Your task to perform on an android device: change your default location settings in chrome Image 0: 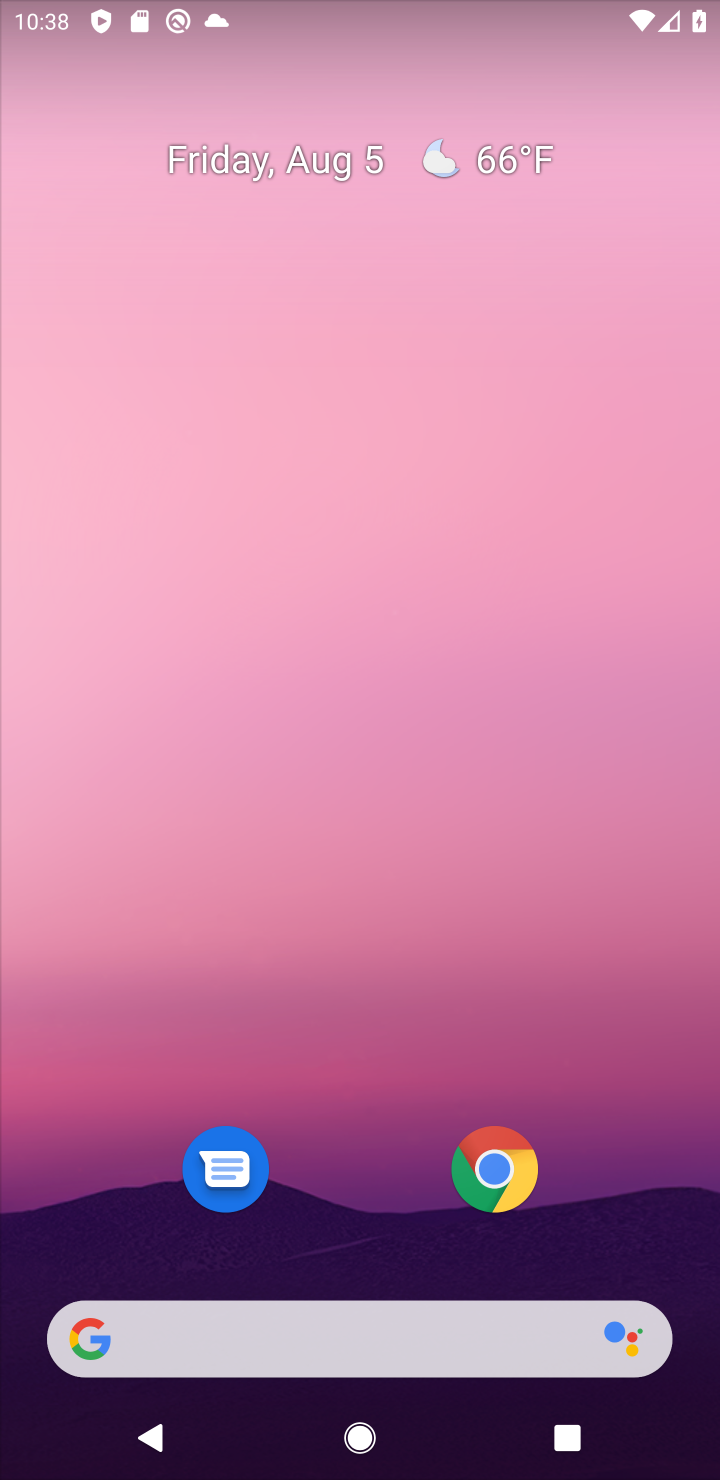
Step 0: click (499, 1176)
Your task to perform on an android device: change your default location settings in chrome Image 1: 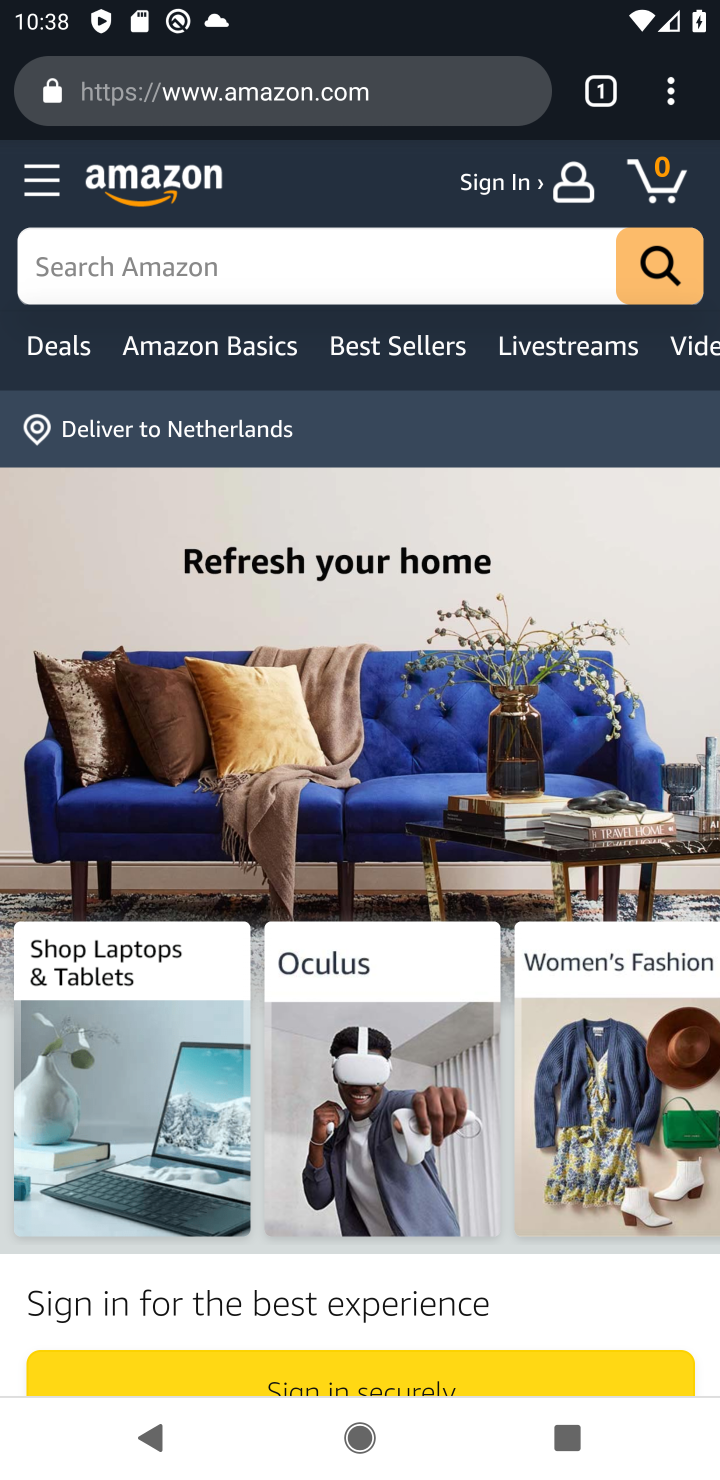
Step 1: click (655, 108)
Your task to perform on an android device: change your default location settings in chrome Image 2: 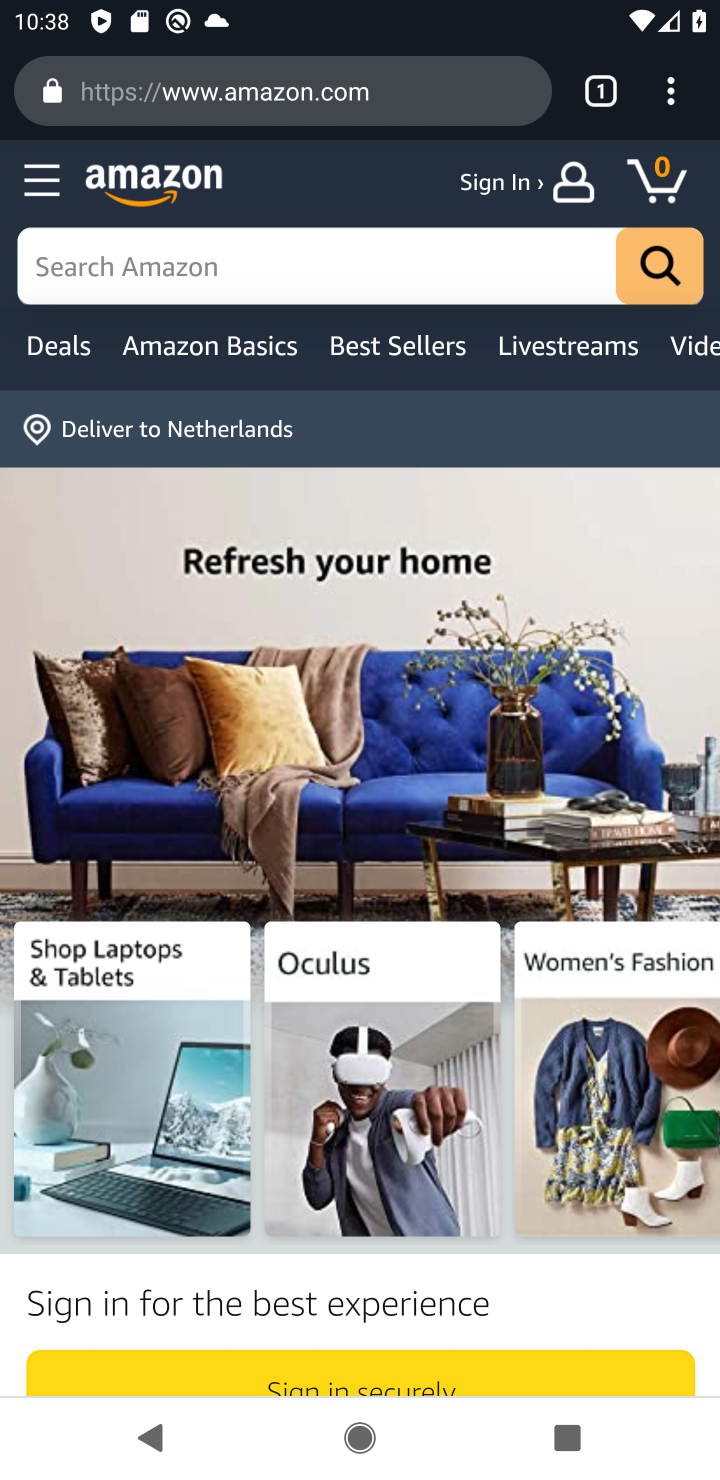
Step 2: task complete